Your task to perform on an android device: Go to ESPN.com Image 0: 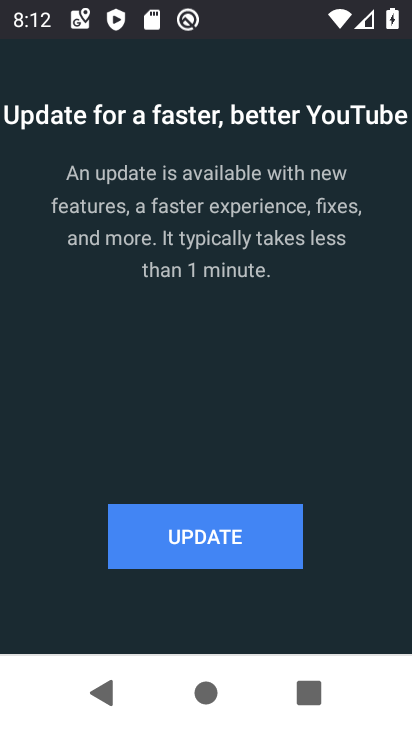
Step 0: press home button
Your task to perform on an android device: Go to ESPN.com Image 1: 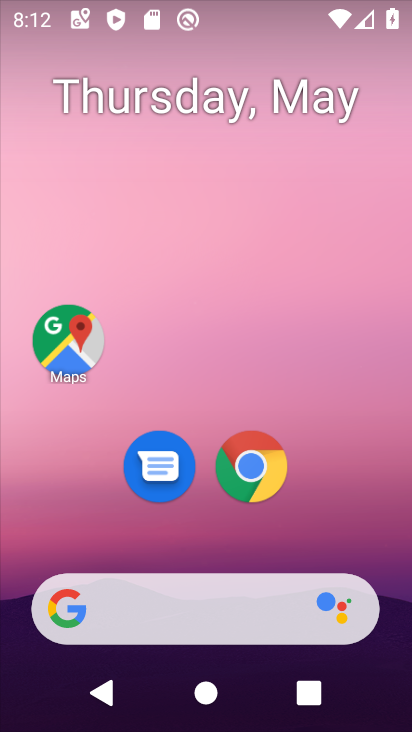
Step 1: click (248, 470)
Your task to perform on an android device: Go to ESPN.com Image 2: 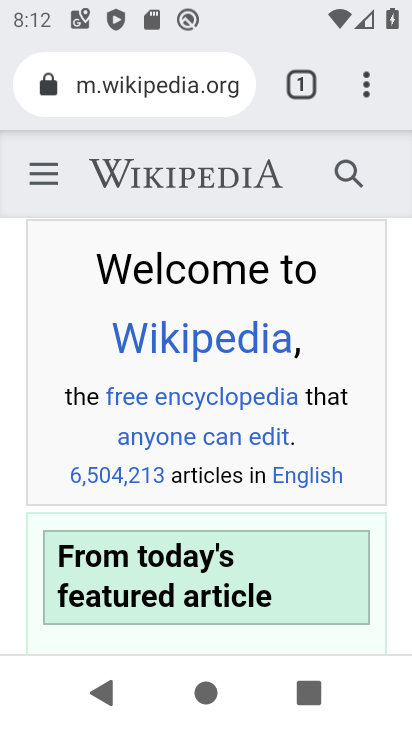
Step 2: click (136, 96)
Your task to perform on an android device: Go to ESPN.com Image 3: 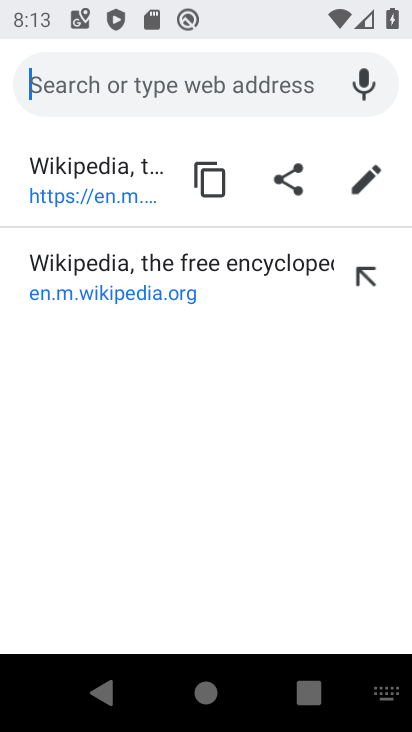
Step 3: type "espn.com"
Your task to perform on an android device: Go to ESPN.com Image 4: 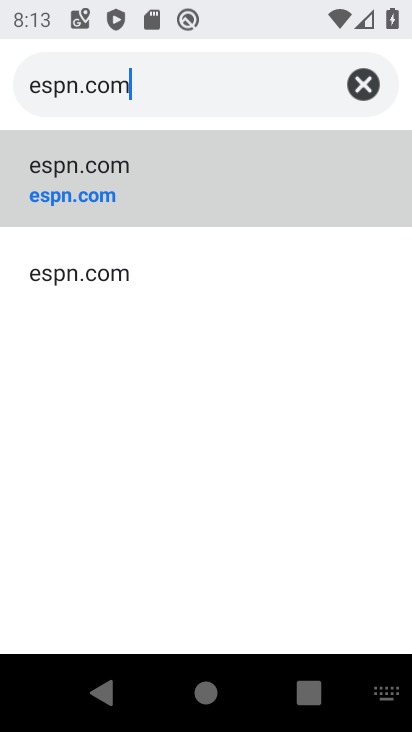
Step 4: click (59, 206)
Your task to perform on an android device: Go to ESPN.com Image 5: 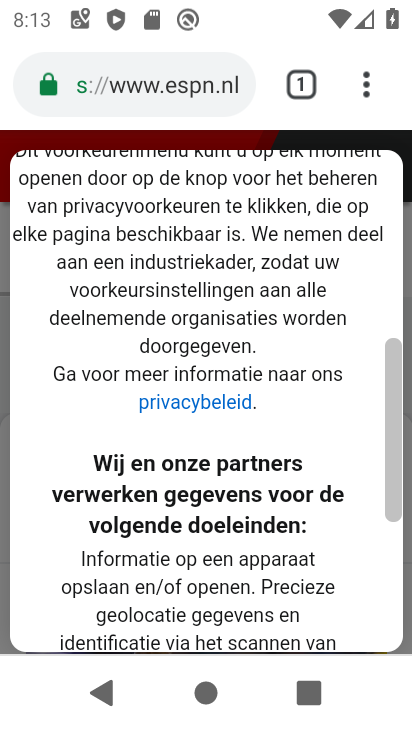
Step 5: task complete